Your task to perform on an android device: Open battery settings Image 0: 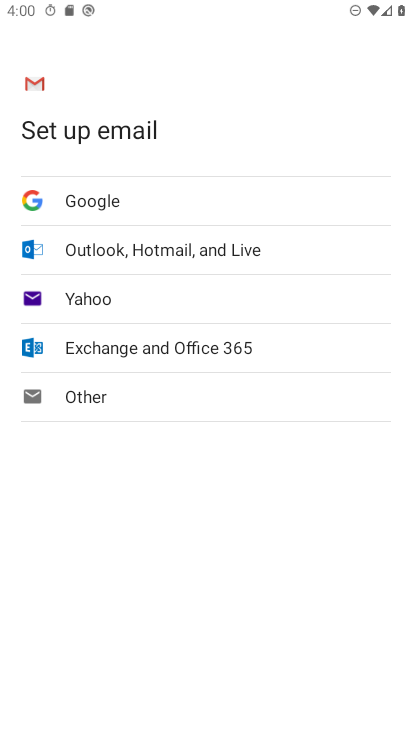
Step 0: press home button
Your task to perform on an android device: Open battery settings Image 1: 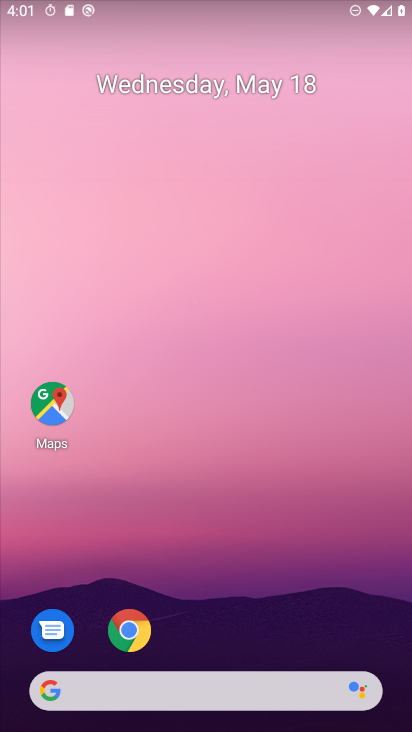
Step 1: drag from (209, 637) to (209, 138)
Your task to perform on an android device: Open battery settings Image 2: 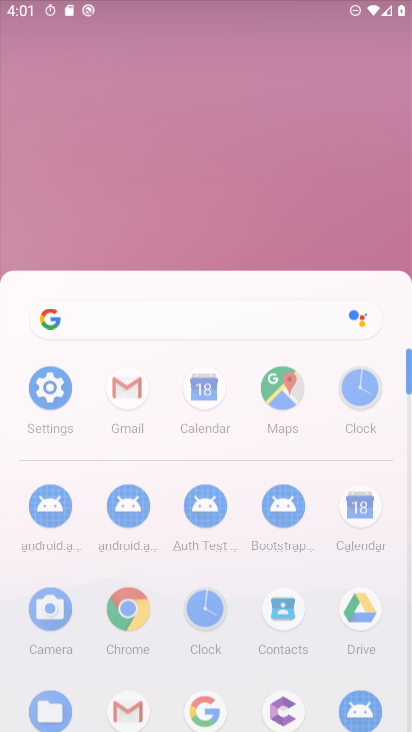
Step 2: click (209, 61)
Your task to perform on an android device: Open battery settings Image 3: 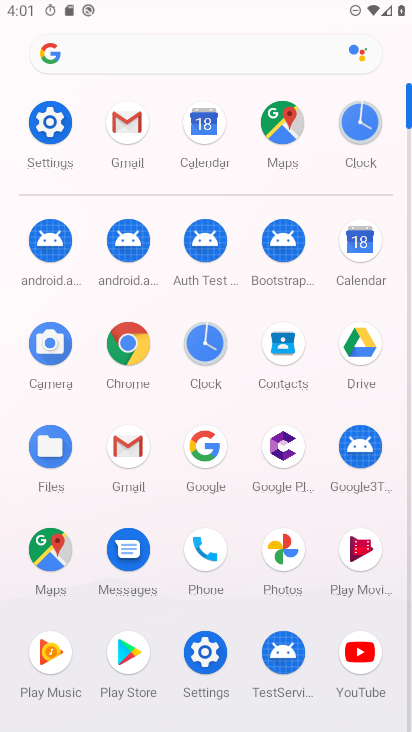
Step 3: click (54, 115)
Your task to perform on an android device: Open battery settings Image 4: 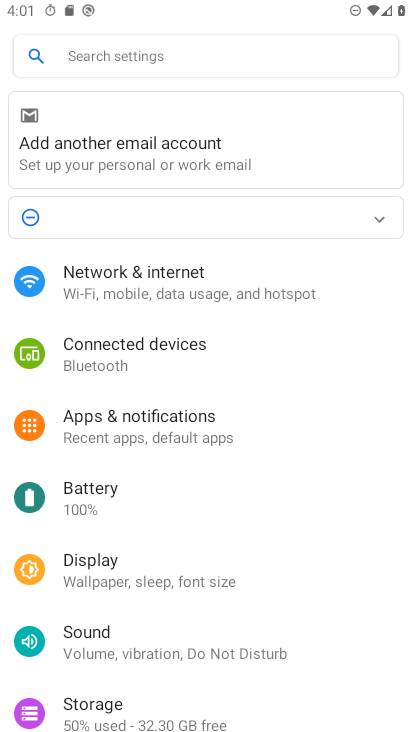
Step 4: click (131, 498)
Your task to perform on an android device: Open battery settings Image 5: 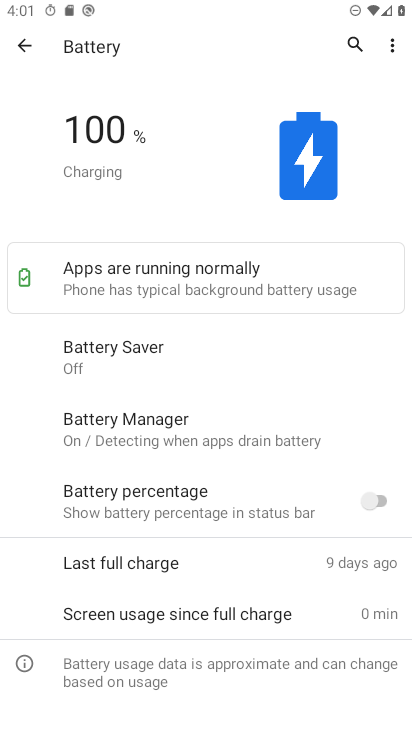
Step 5: drag from (165, 601) to (194, 359)
Your task to perform on an android device: Open battery settings Image 6: 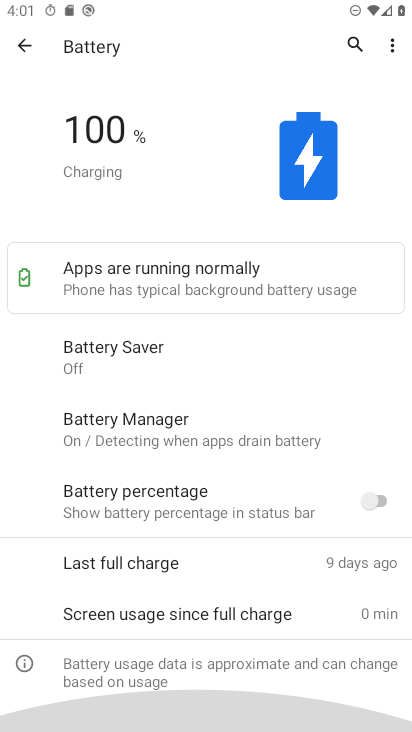
Step 6: click (212, 249)
Your task to perform on an android device: Open battery settings Image 7: 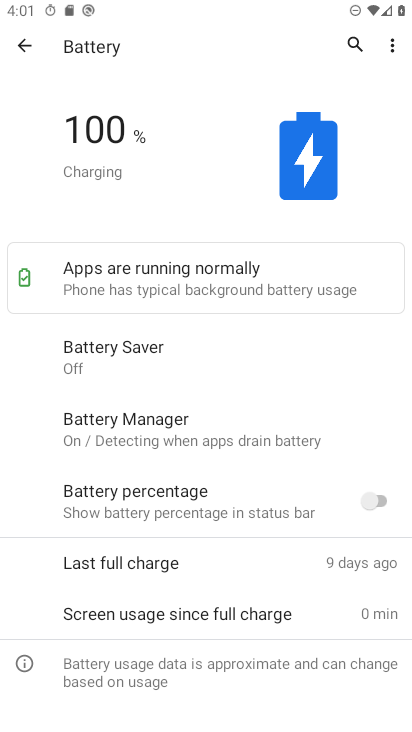
Step 7: task complete